Your task to perform on an android device: Google the capital of Canada Image 0: 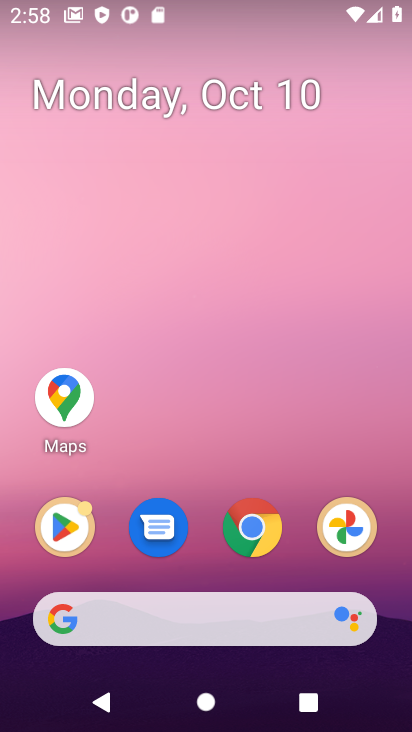
Step 0: press home button
Your task to perform on an android device: Google the capital of Canada Image 1: 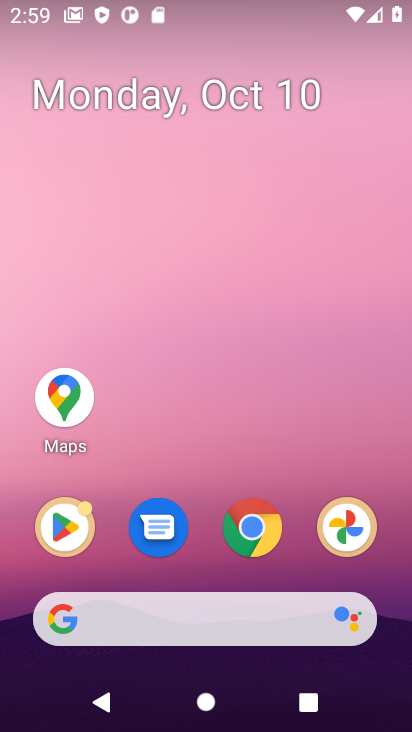
Step 1: click (267, 627)
Your task to perform on an android device: Google the capital of Canada Image 2: 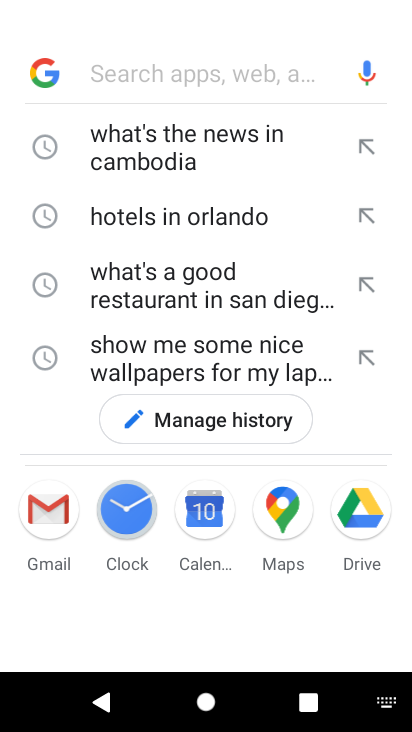
Step 2: type " capital of Canada"
Your task to perform on an android device: Google the capital of Canada Image 3: 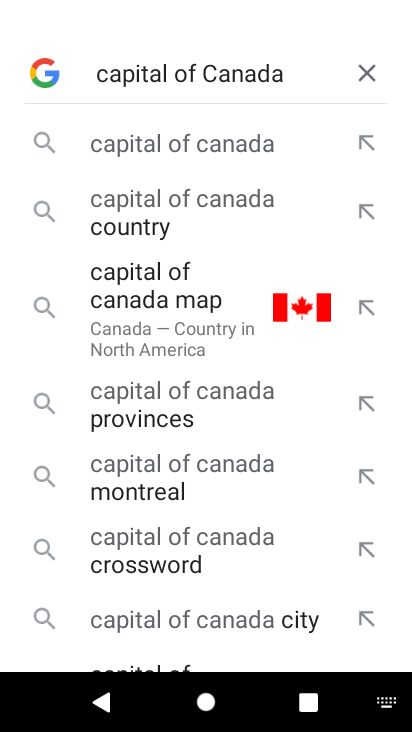
Step 3: press enter
Your task to perform on an android device: Google the capital of Canada Image 4: 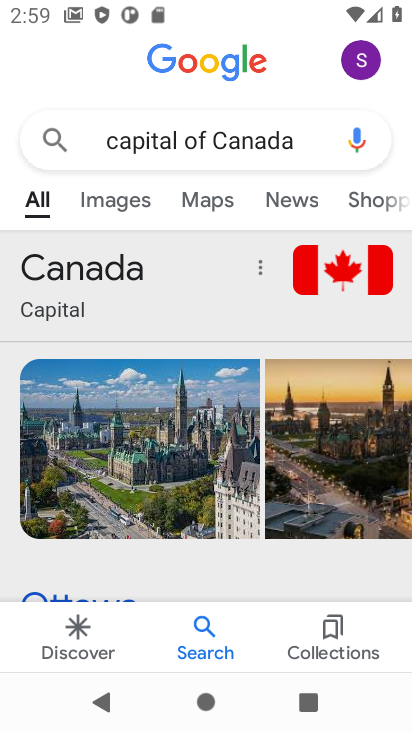
Step 4: task complete